Your task to perform on an android device: Go to Amazon Image 0: 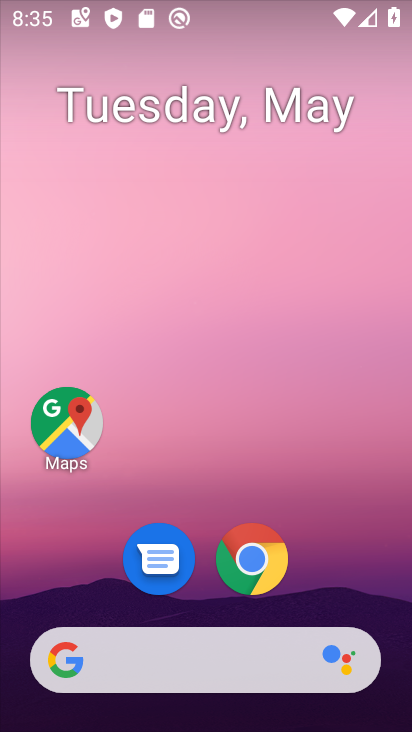
Step 0: drag from (322, 414) to (314, 46)
Your task to perform on an android device: Go to Amazon Image 1: 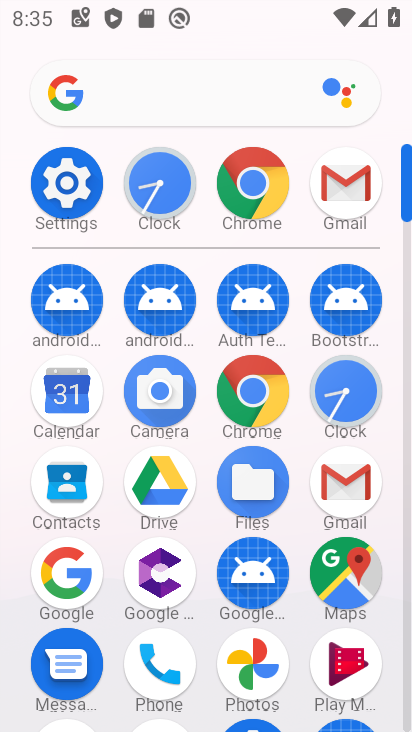
Step 1: click (268, 204)
Your task to perform on an android device: Go to Amazon Image 2: 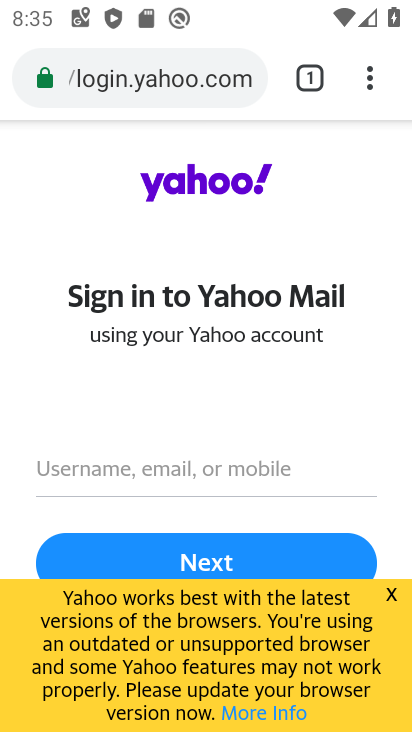
Step 2: click (202, 82)
Your task to perform on an android device: Go to Amazon Image 3: 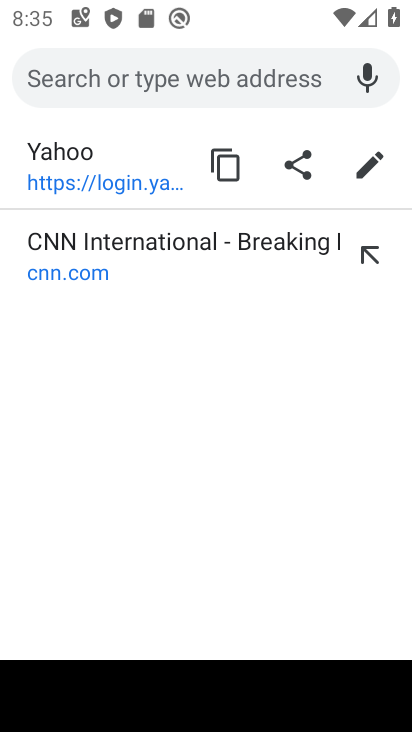
Step 3: type "amazon"
Your task to perform on an android device: Go to Amazon Image 4: 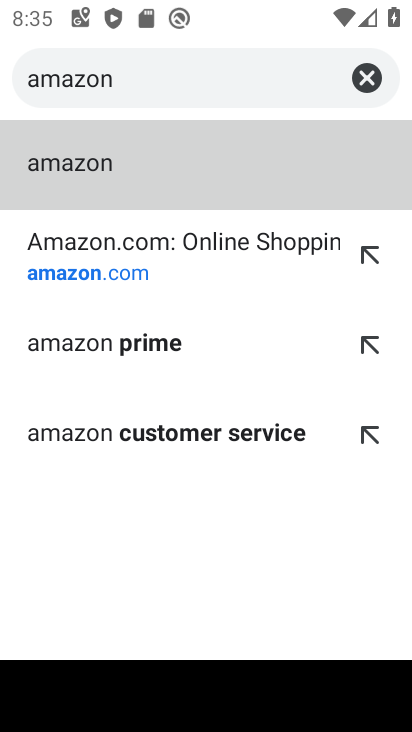
Step 4: click (95, 264)
Your task to perform on an android device: Go to Amazon Image 5: 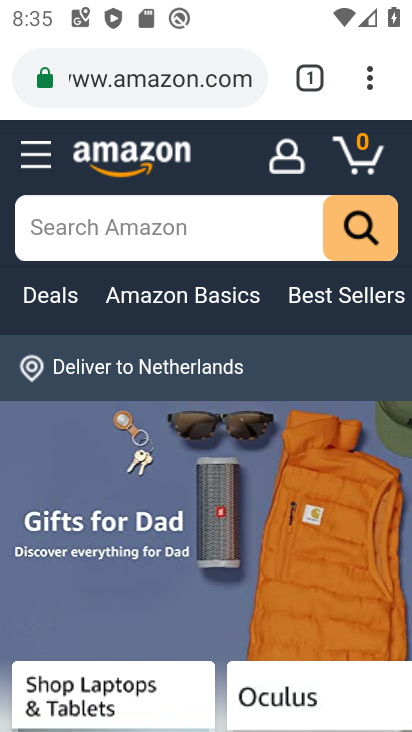
Step 5: task complete